Your task to perform on an android device: Go to notification settings Image 0: 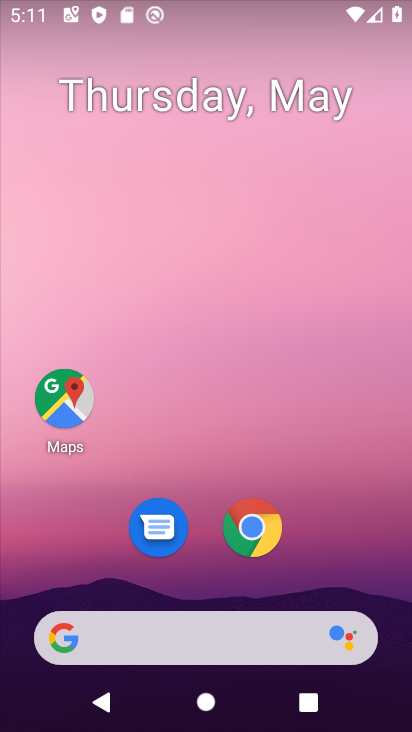
Step 0: drag from (342, 529) to (366, 62)
Your task to perform on an android device: Go to notification settings Image 1: 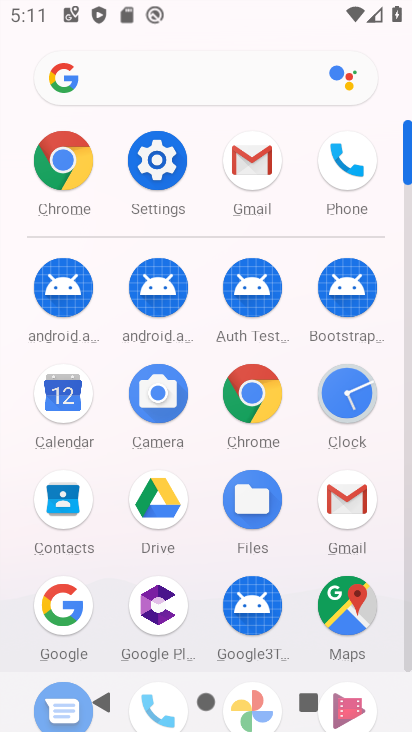
Step 1: click (158, 171)
Your task to perform on an android device: Go to notification settings Image 2: 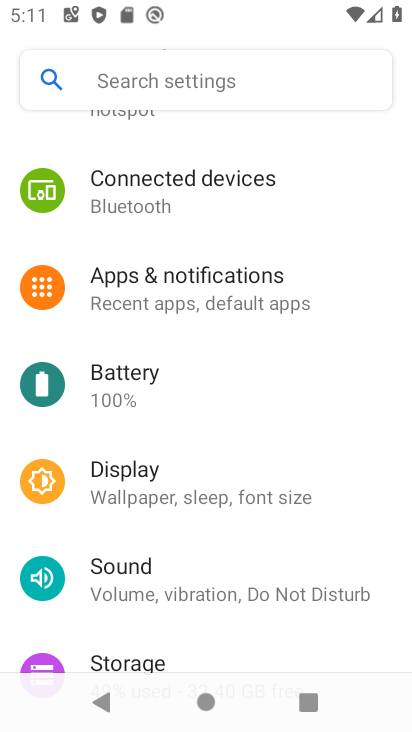
Step 2: click (206, 287)
Your task to perform on an android device: Go to notification settings Image 3: 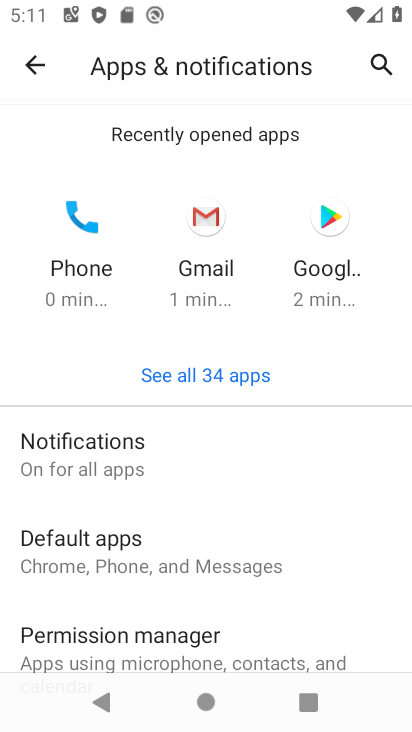
Step 3: click (90, 461)
Your task to perform on an android device: Go to notification settings Image 4: 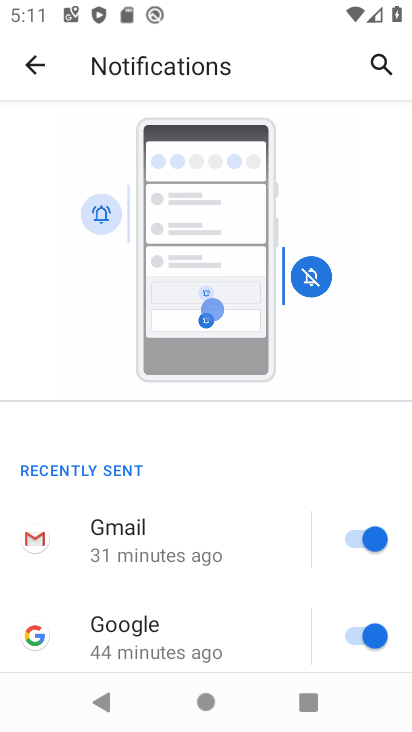
Step 4: task complete